Your task to perform on an android device: Search for pizza restaurants on Maps Image 0: 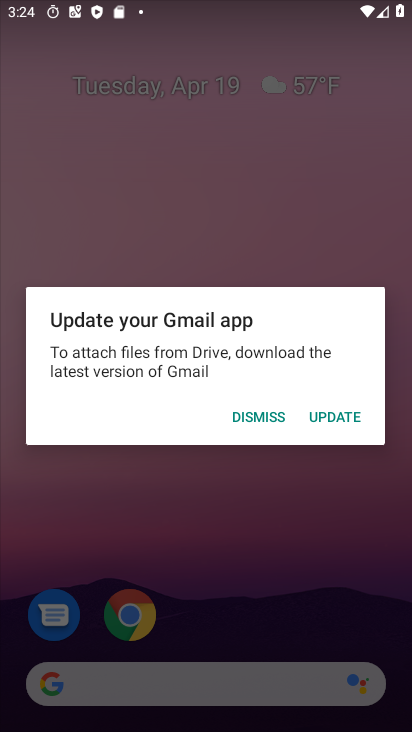
Step 0: click (259, 412)
Your task to perform on an android device: Search for pizza restaurants on Maps Image 1: 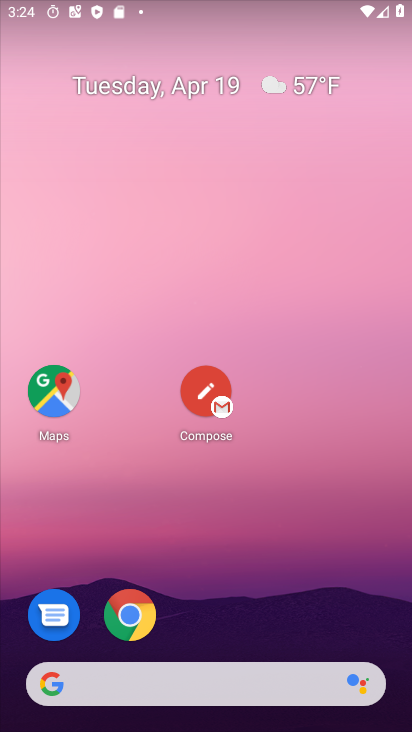
Step 1: drag from (321, 543) to (330, 25)
Your task to perform on an android device: Search for pizza restaurants on Maps Image 2: 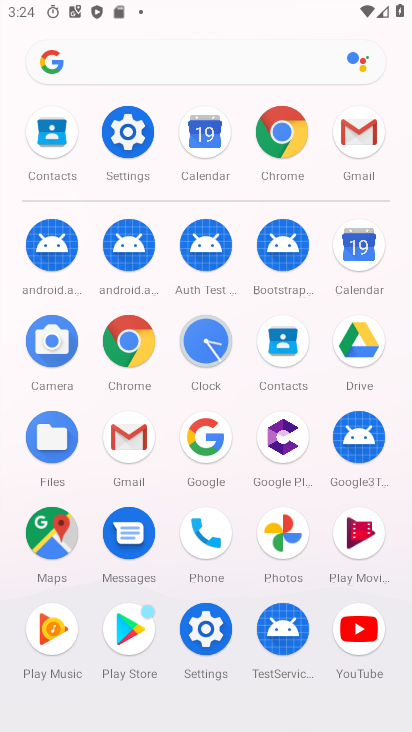
Step 2: drag from (321, 573) to (317, 278)
Your task to perform on an android device: Search for pizza restaurants on Maps Image 3: 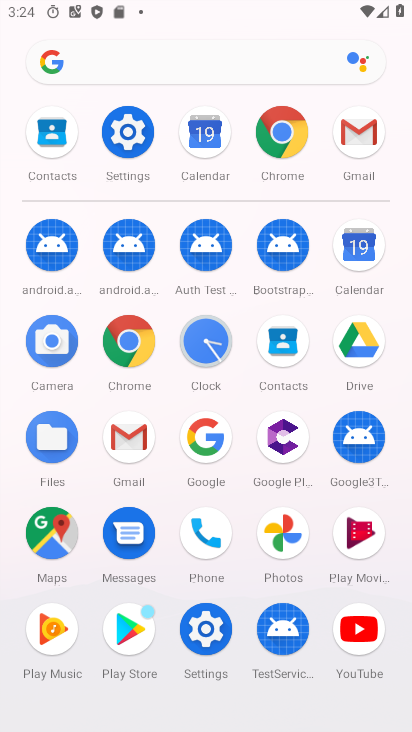
Step 3: click (51, 535)
Your task to perform on an android device: Search for pizza restaurants on Maps Image 4: 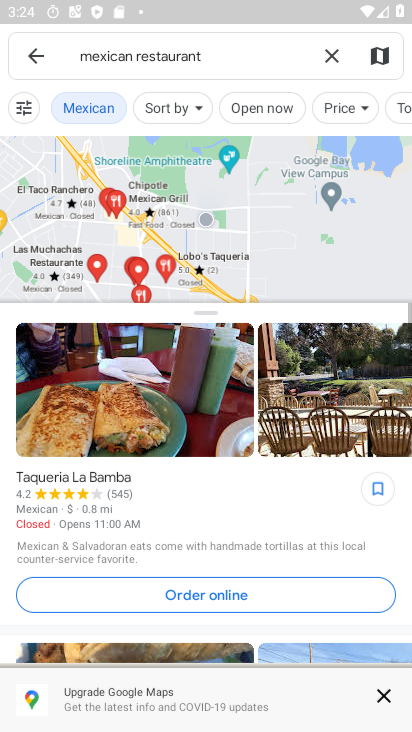
Step 4: click (331, 53)
Your task to perform on an android device: Search for pizza restaurants on Maps Image 5: 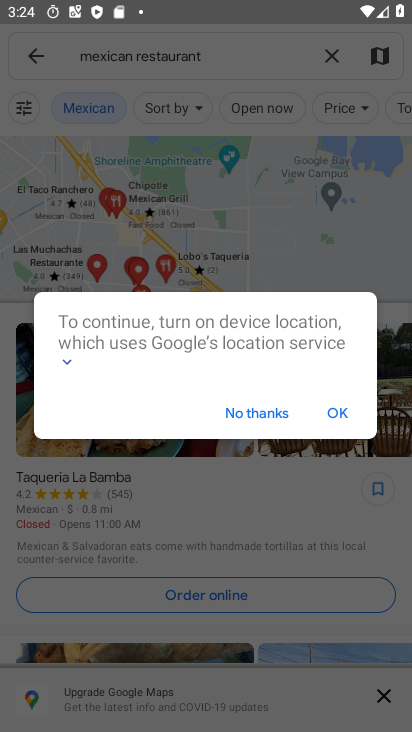
Step 5: click (260, 407)
Your task to perform on an android device: Search for pizza restaurants on Maps Image 6: 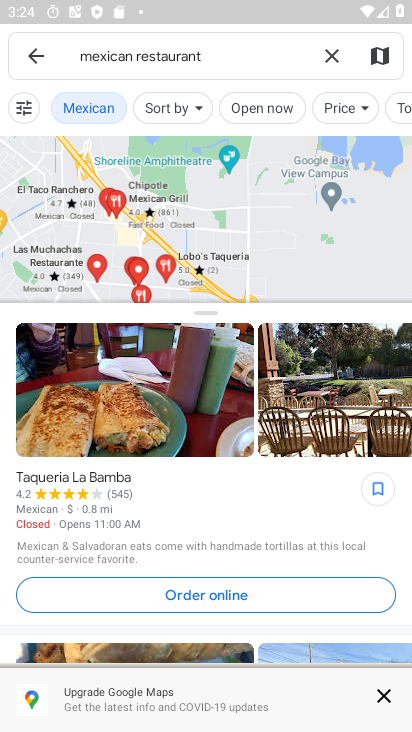
Step 6: click (332, 50)
Your task to perform on an android device: Search for pizza restaurants on Maps Image 7: 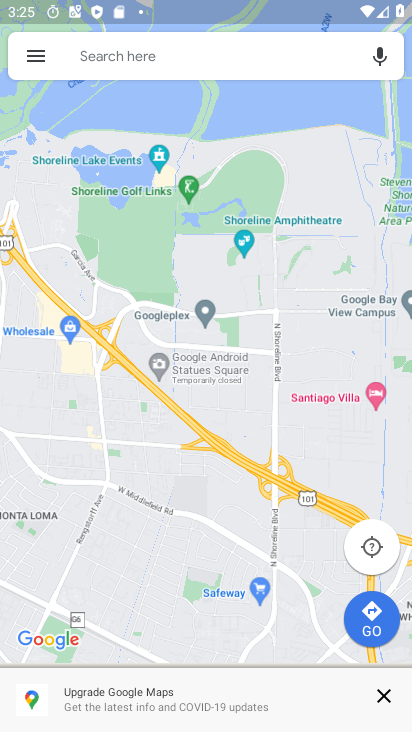
Step 7: click (341, 57)
Your task to perform on an android device: Search for pizza restaurants on Maps Image 8: 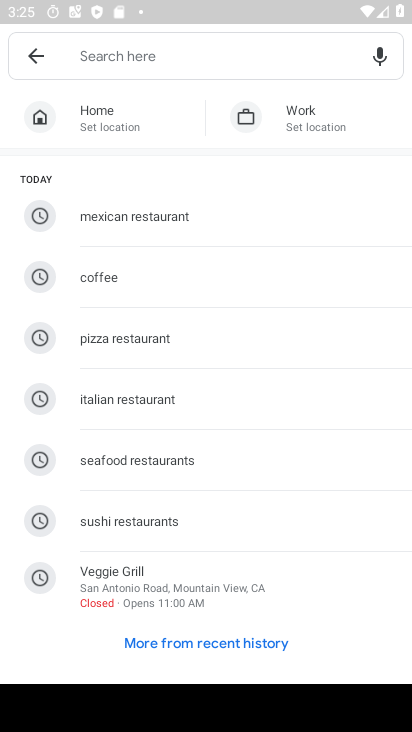
Step 8: type "pizza restaurant"
Your task to perform on an android device: Search for pizza restaurants on Maps Image 9: 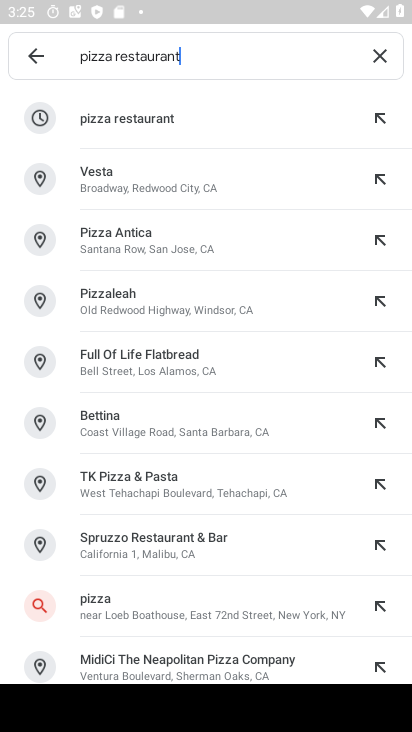
Step 9: click (275, 130)
Your task to perform on an android device: Search for pizza restaurants on Maps Image 10: 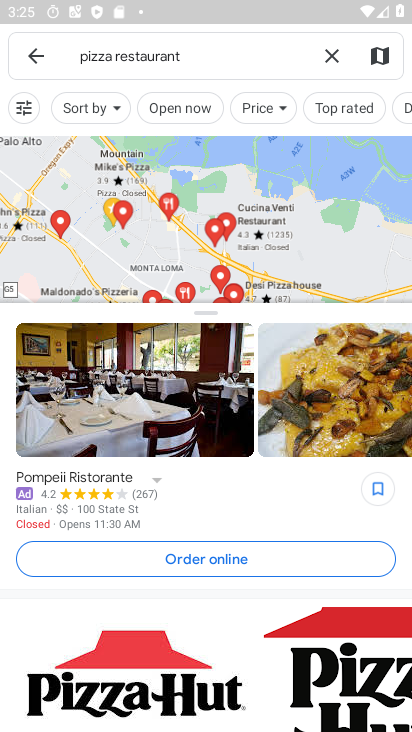
Step 10: task complete